Your task to perform on an android device: Open display settings Image 0: 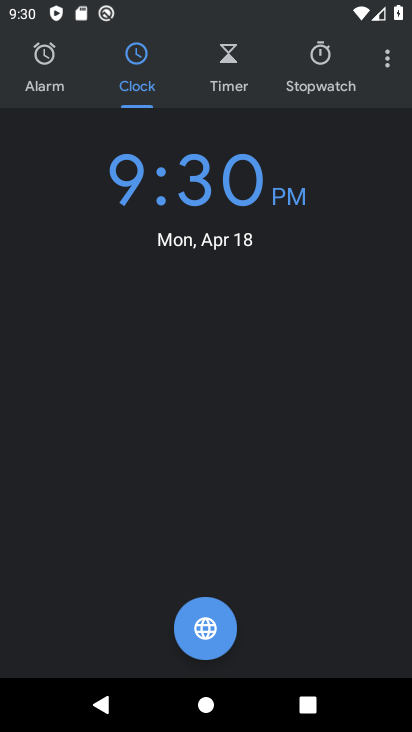
Step 0: press back button
Your task to perform on an android device: Open display settings Image 1: 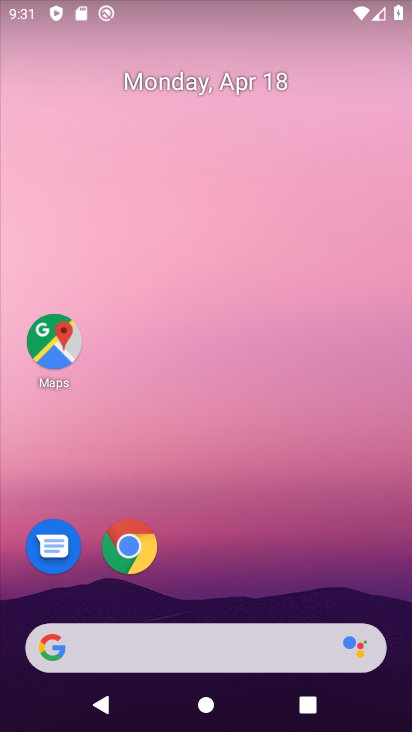
Step 1: drag from (212, 552) to (356, 141)
Your task to perform on an android device: Open display settings Image 2: 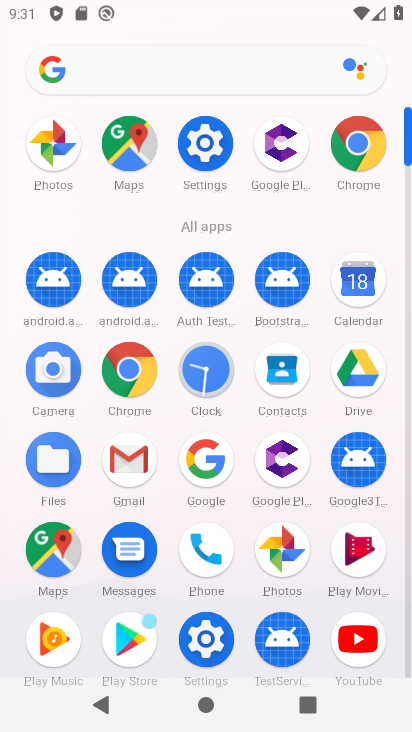
Step 2: click (205, 651)
Your task to perform on an android device: Open display settings Image 3: 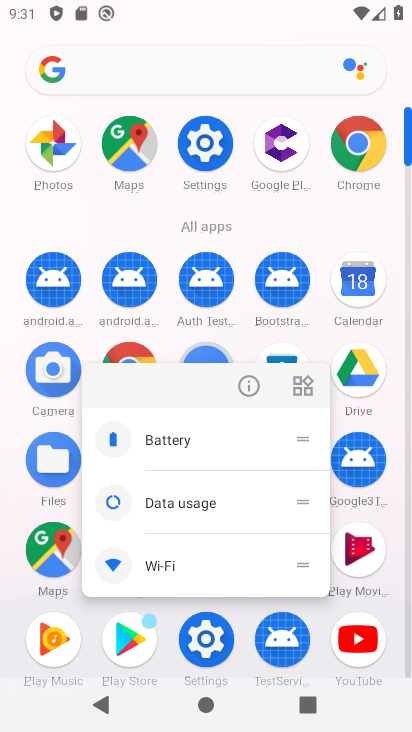
Step 3: click (203, 647)
Your task to perform on an android device: Open display settings Image 4: 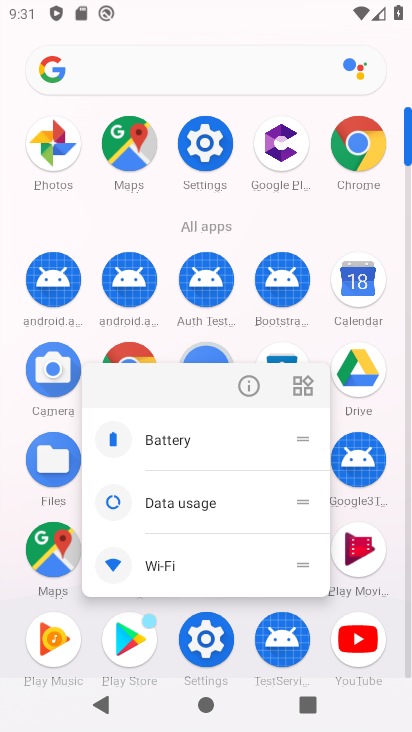
Step 4: click (198, 631)
Your task to perform on an android device: Open display settings Image 5: 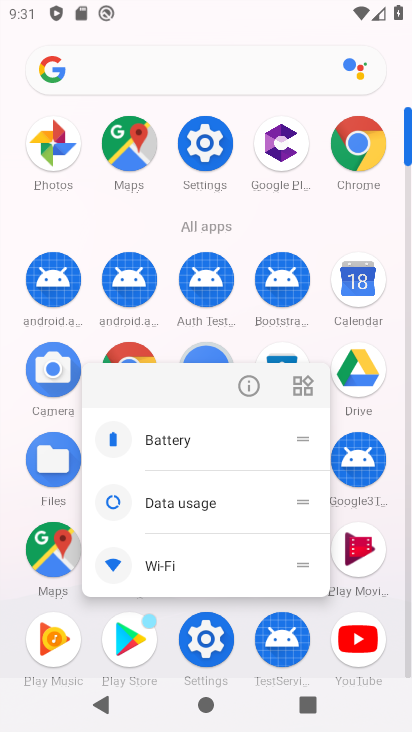
Step 5: click (206, 642)
Your task to perform on an android device: Open display settings Image 6: 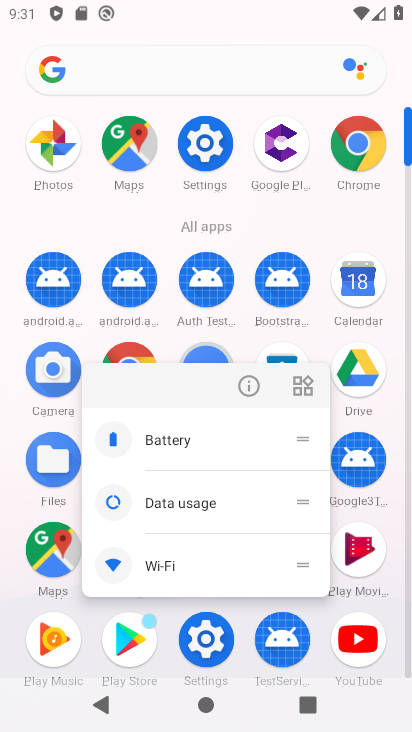
Step 6: click (204, 660)
Your task to perform on an android device: Open display settings Image 7: 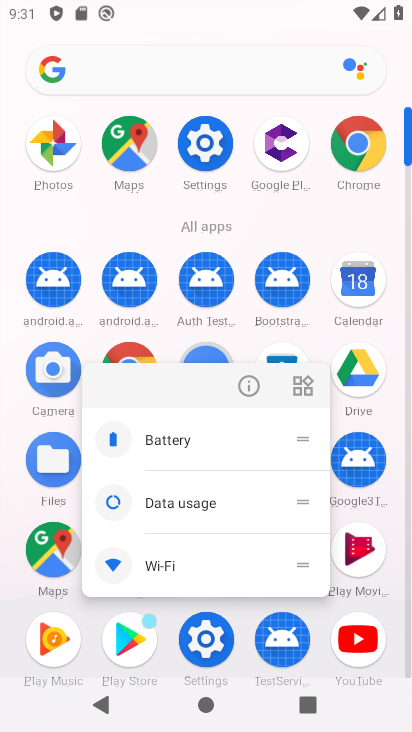
Step 7: click (205, 642)
Your task to perform on an android device: Open display settings Image 8: 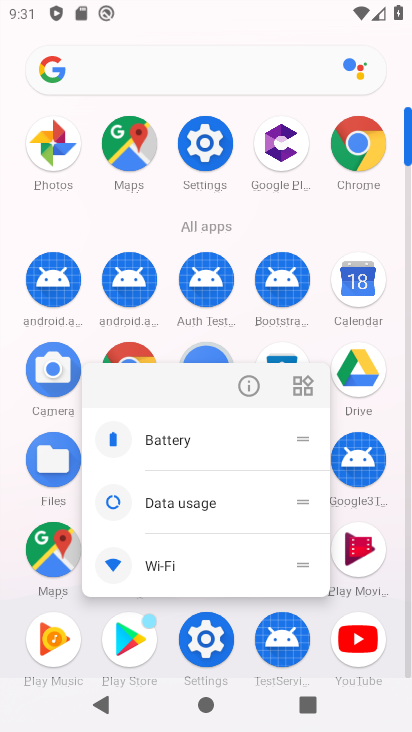
Step 8: click (211, 634)
Your task to perform on an android device: Open display settings Image 9: 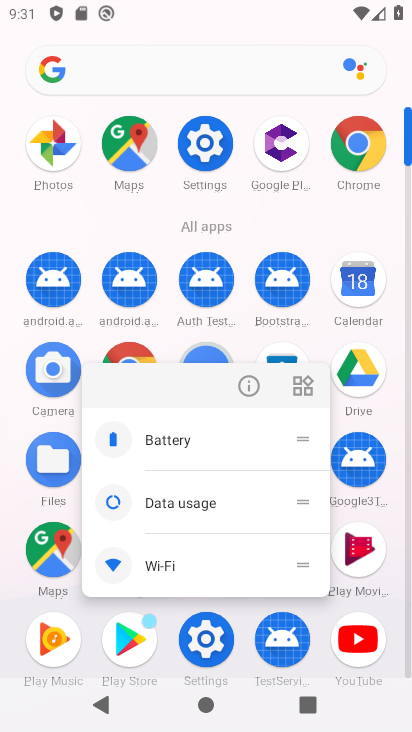
Step 9: click (211, 640)
Your task to perform on an android device: Open display settings Image 10: 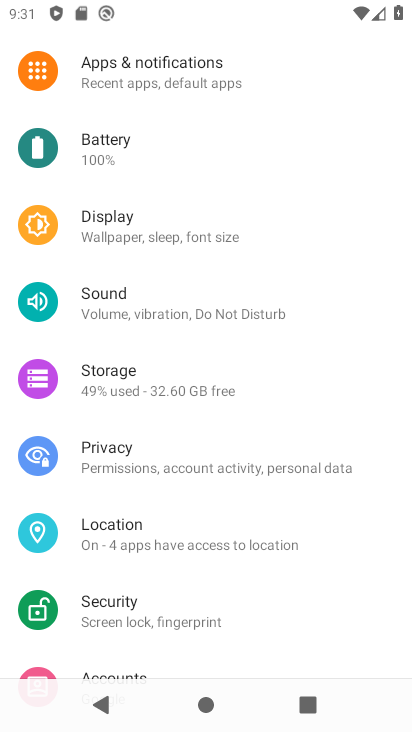
Step 10: click (192, 232)
Your task to perform on an android device: Open display settings Image 11: 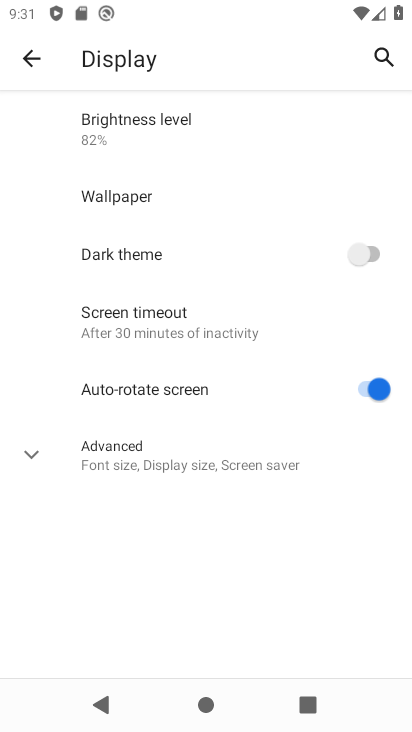
Step 11: task complete